Your task to perform on an android device: turn off wifi Image 0: 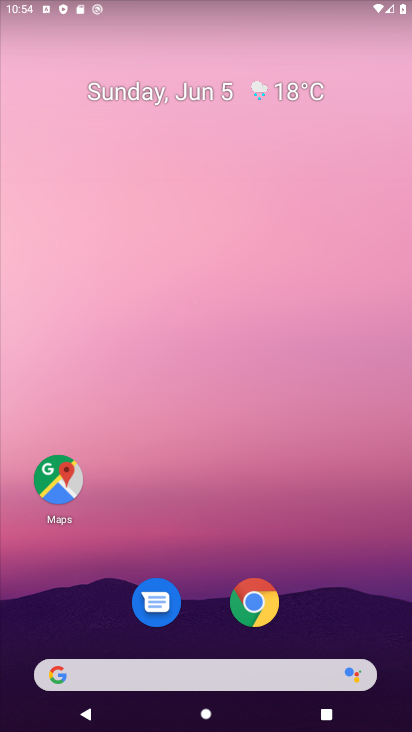
Step 0: task complete